Your task to perform on an android device: open sync settings in chrome Image 0: 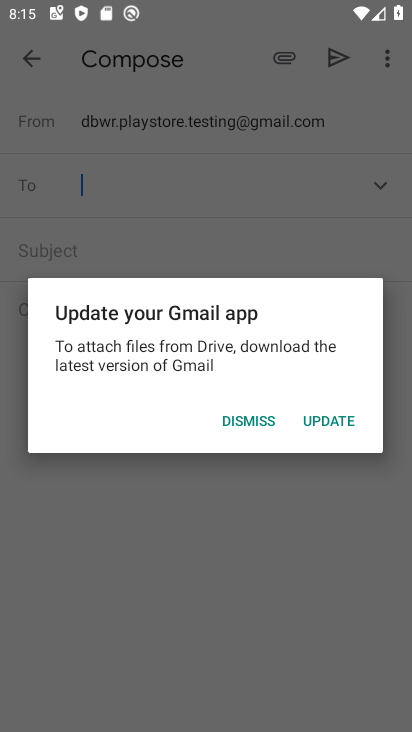
Step 0: press home button
Your task to perform on an android device: open sync settings in chrome Image 1: 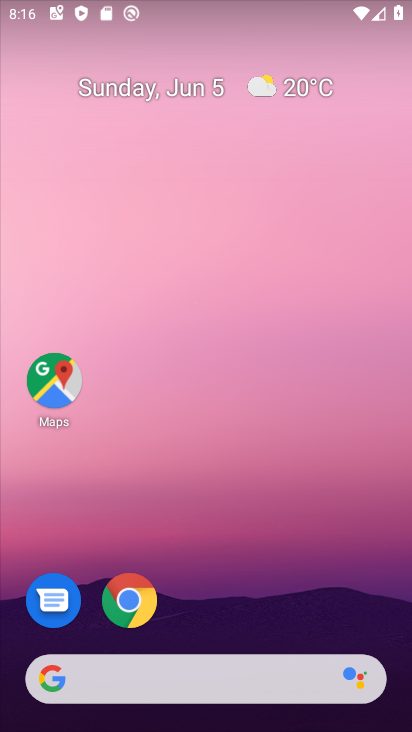
Step 1: click (138, 606)
Your task to perform on an android device: open sync settings in chrome Image 2: 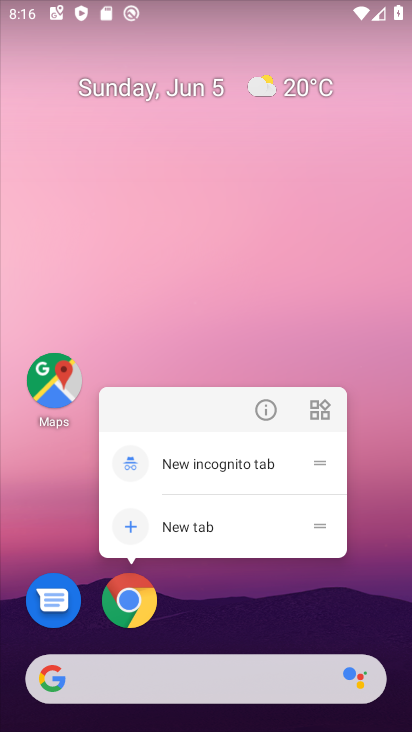
Step 2: click (139, 618)
Your task to perform on an android device: open sync settings in chrome Image 3: 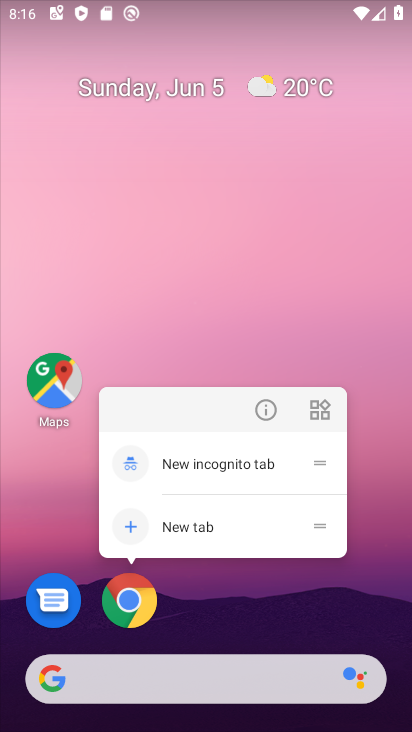
Step 3: click (143, 612)
Your task to perform on an android device: open sync settings in chrome Image 4: 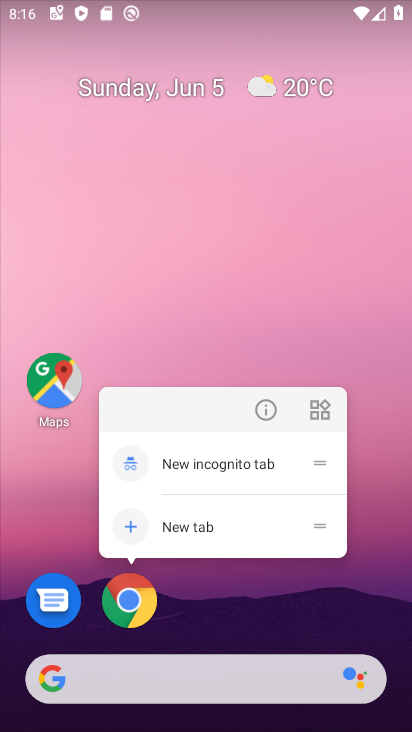
Step 4: click (148, 607)
Your task to perform on an android device: open sync settings in chrome Image 5: 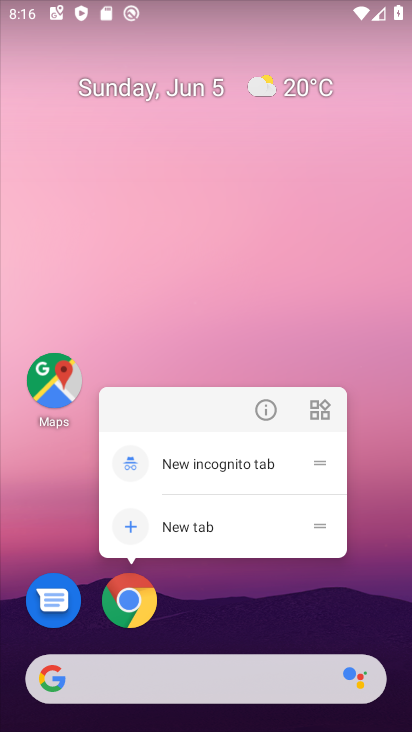
Step 5: click (148, 607)
Your task to perform on an android device: open sync settings in chrome Image 6: 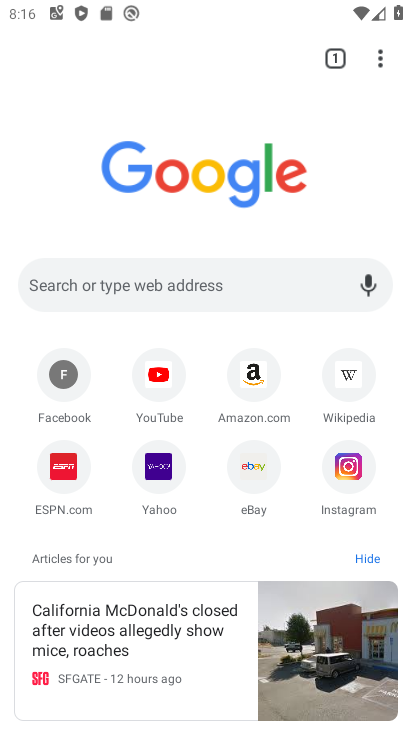
Step 6: drag from (396, 64) to (227, 498)
Your task to perform on an android device: open sync settings in chrome Image 7: 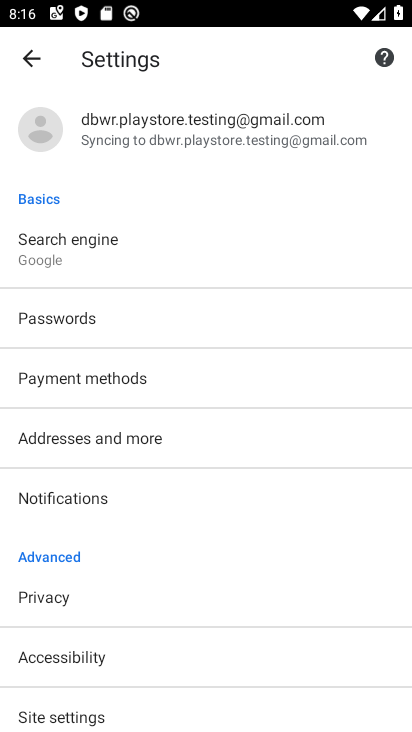
Step 7: drag from (226, 641) to (256, 574)
Your task to perform on an android device: open sync settings in chrome Image 8: 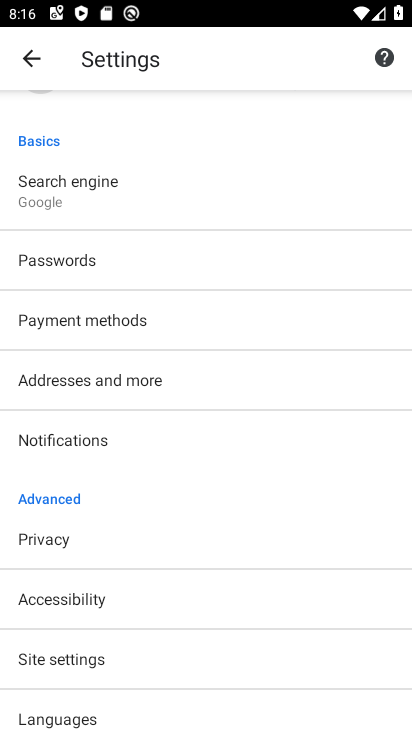
Step 8: drag from (174, 315) to (164, 606)
Your task to perform on an android device: open sync settings in chrome Image 9: 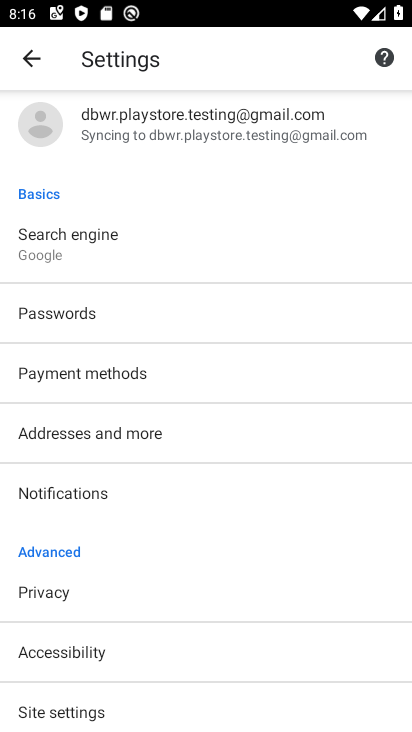
Step 9: drag from (180, 585) to (172, 655)
Your task to perform on an android device: open sync settings in chrome Image 10: 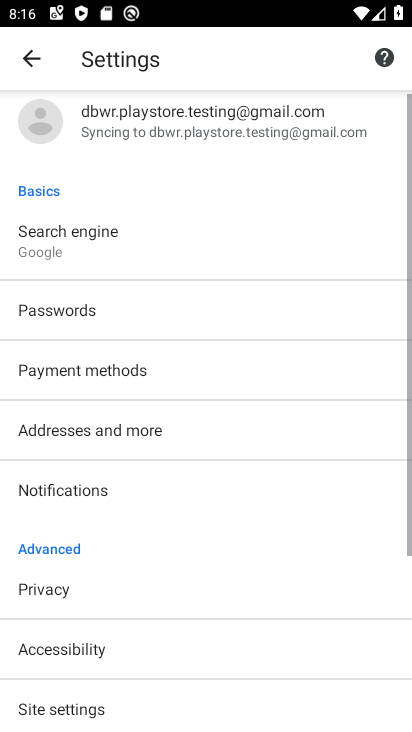
Step 10: click (255, 156)
Your task to perform on an android device: open sync settings in chrome Image 11: 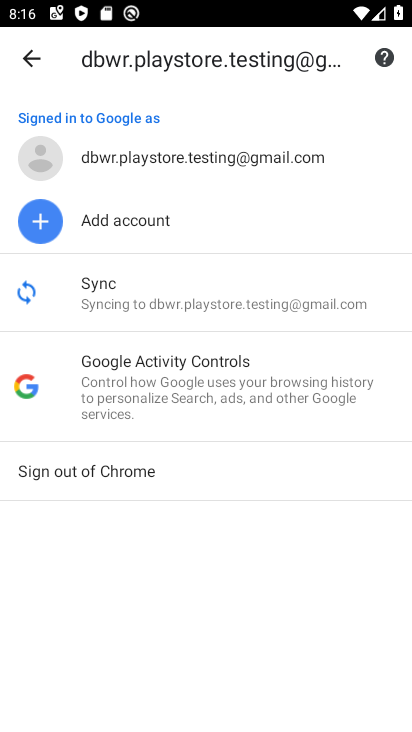
Step 11: click (196, 302)
Your task to perform on an android device: open sync settings in chrome Image 12: 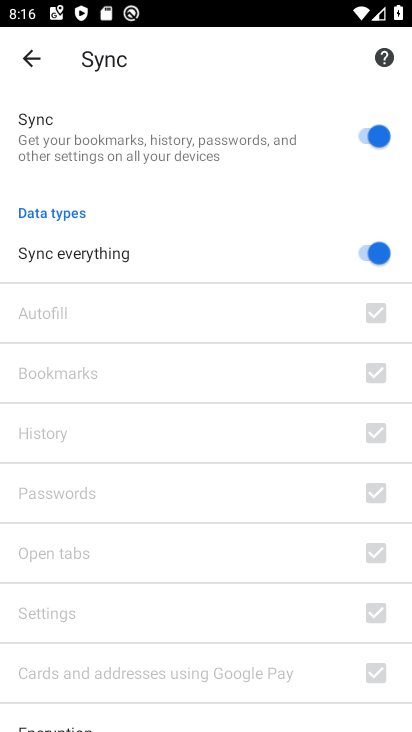
Step 12: task complete